Your task to perform on an android device: Open wifi settings Image 0: 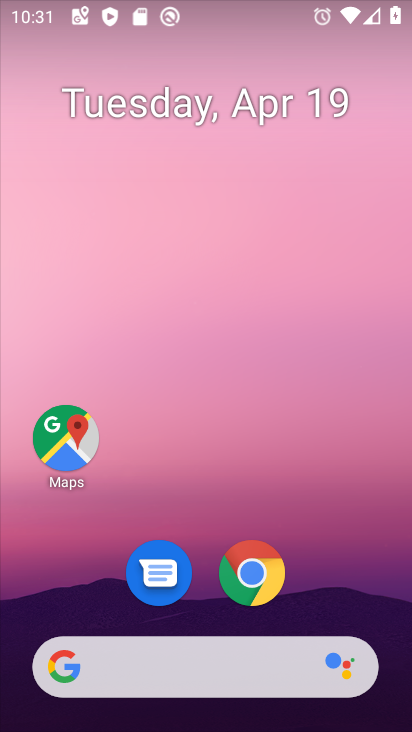
Step 0: drag from (335, 489) to (330, 128)
Your task to perform on an android device: Open wifi settings Image 1: 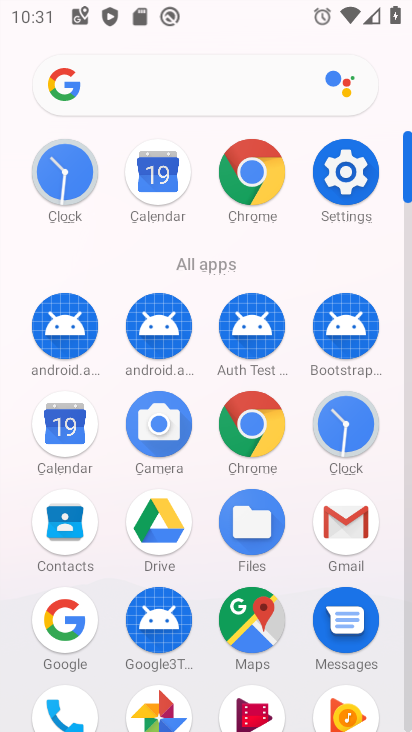
Step 1: click (331, 176)
Your task to perform on an android device: Open wifi settings Image 2: 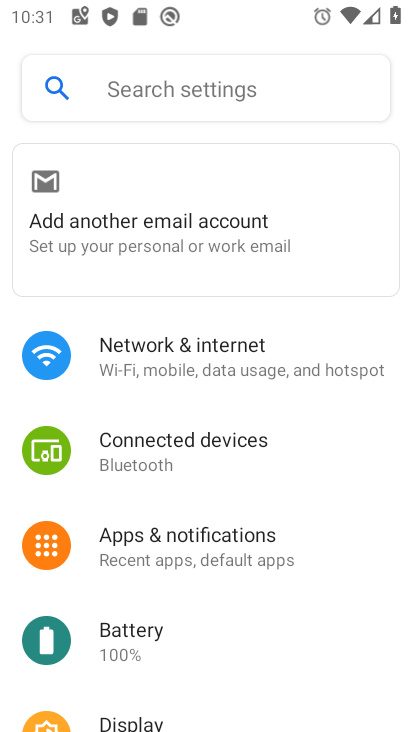
Step 2: click (150, 358)
Your task to perform on an android device: Open wifi settings Image 3: 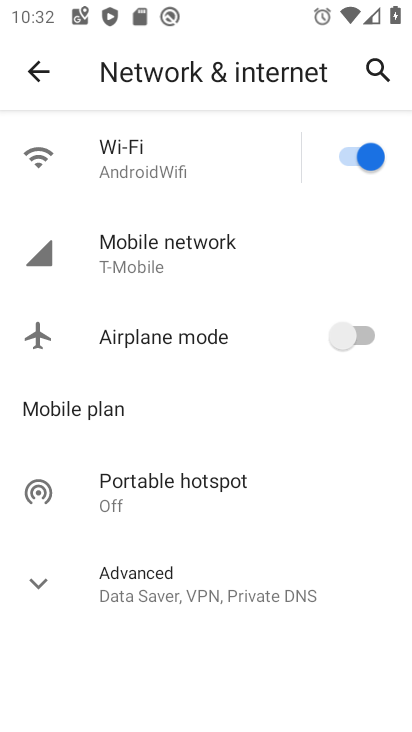
Step 3: click (136, 150)
Your task to perform on an android device: Open wifi settings Image 4: 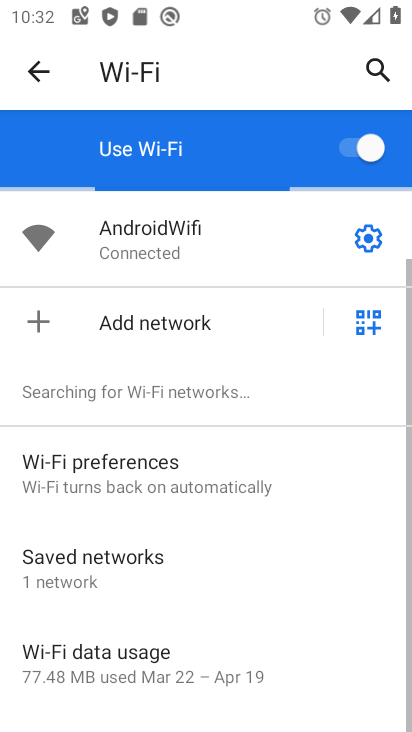
Step 4: task complete